Your task to perform on an android device: delete location history Image 0: 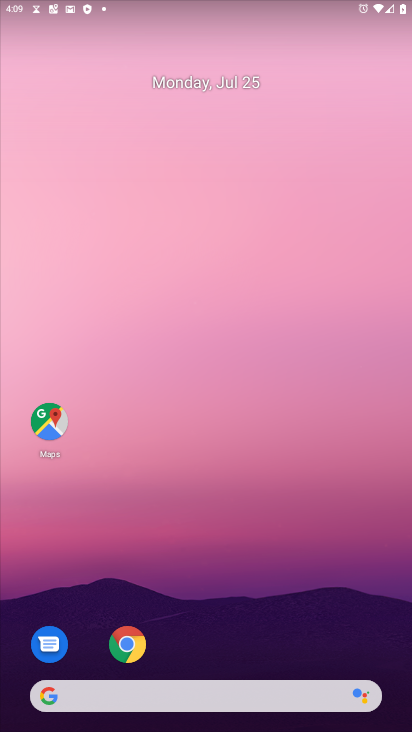
Step 0: press home button
Your task to perform on an android device: delete location history Image 1: 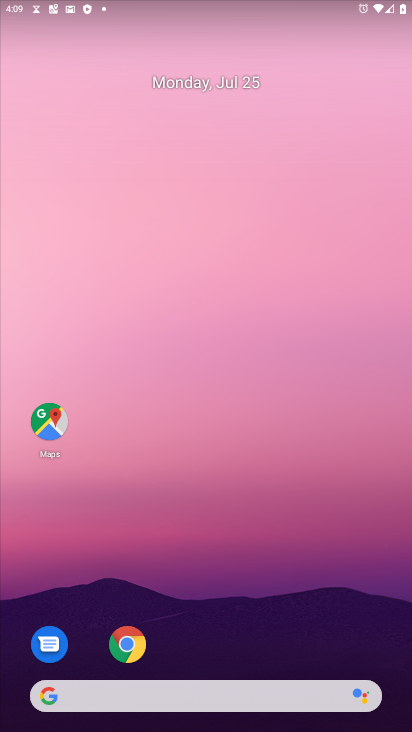
Step 1: drag from (222, 605) to (153, 52)
Your task to perform on an android device: delete location history Image 2: 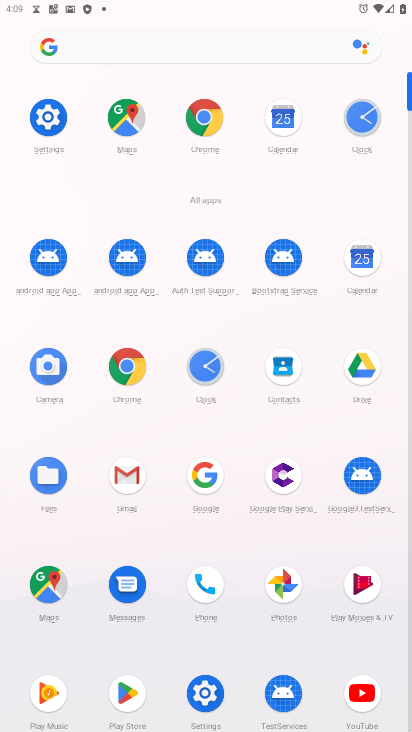
Step 2: click (35, 103)
Your task to perform on an android device: delete location history Image 3: 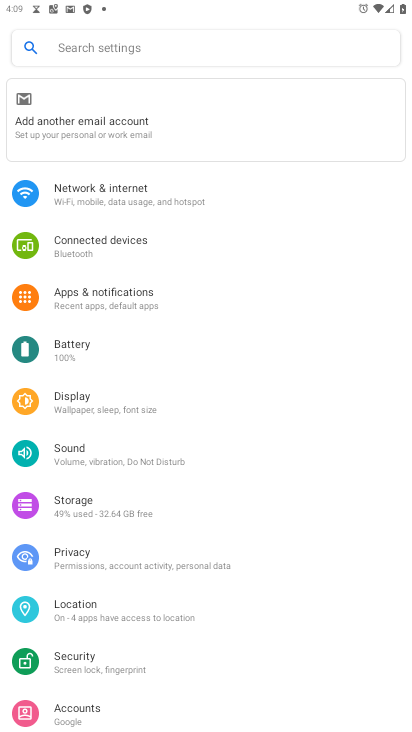
Step 3: click (90, 612)
Your task to perform on an android device: delete location history Image 4: 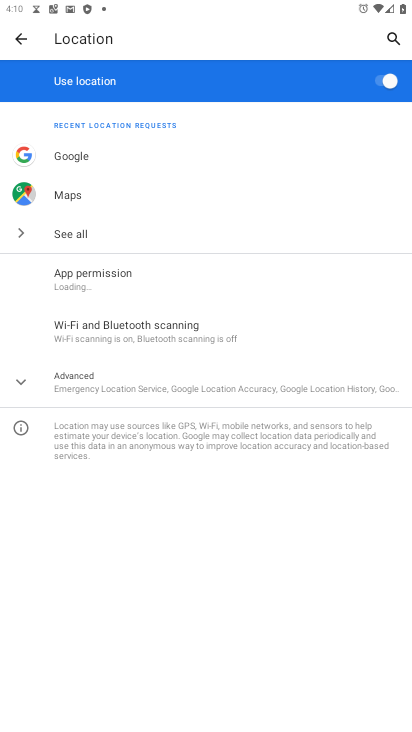
Step 4: click (22, 376)
Your task to perform on an android device: delete location history Image 5: 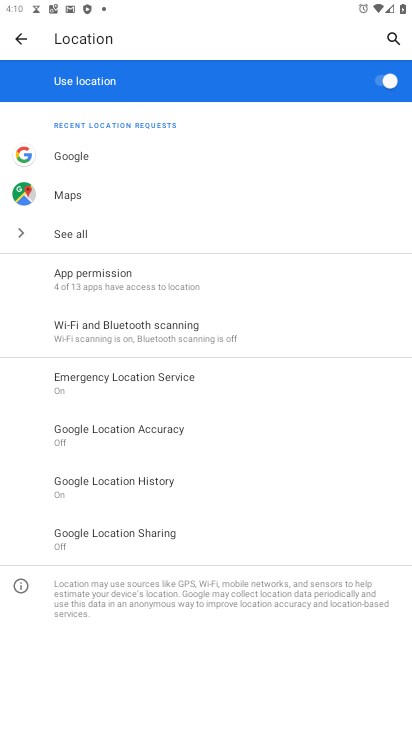
Step 5: click (111, 484)
Your task to perform on an android device: delete location history Image 6: 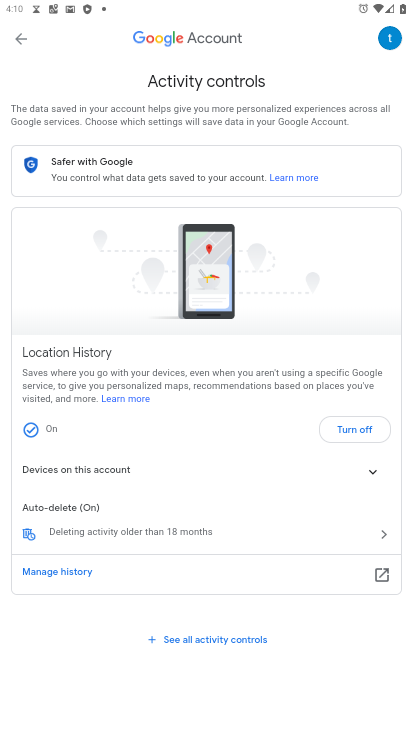
Step 6: click (25, 527)
Your task to perform on an android device: delete location history Image 7: 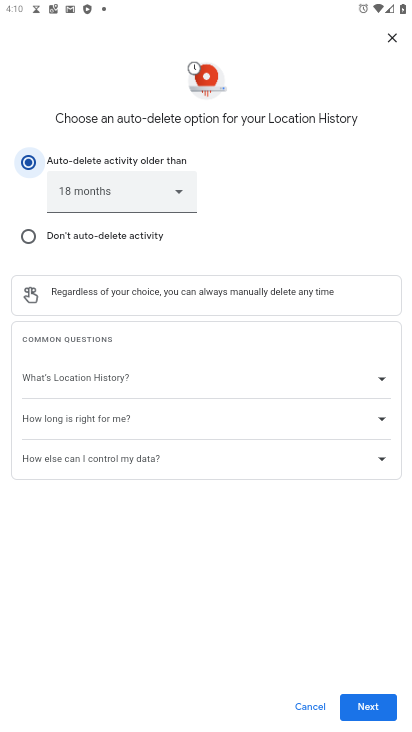
Step 7: click (378, 703)
Your task to perform on an android device: delete location history Image 8: 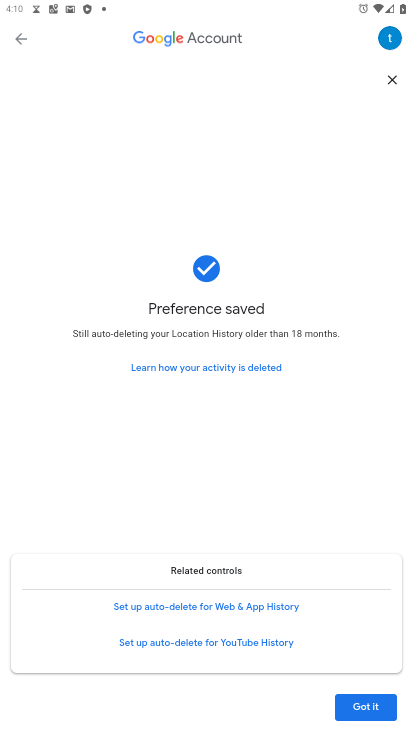
Step 8: click (368, 703)
Your task to perform on an android device: delete location history Image 9: 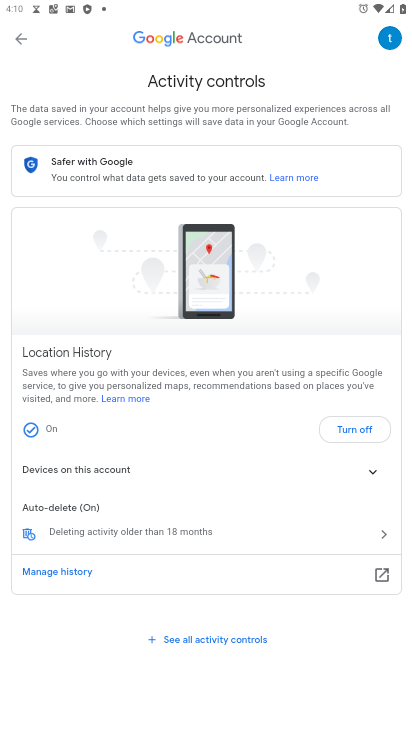
Step 9: task complete